Your task to perform on an android device: Open location settings Image 0: 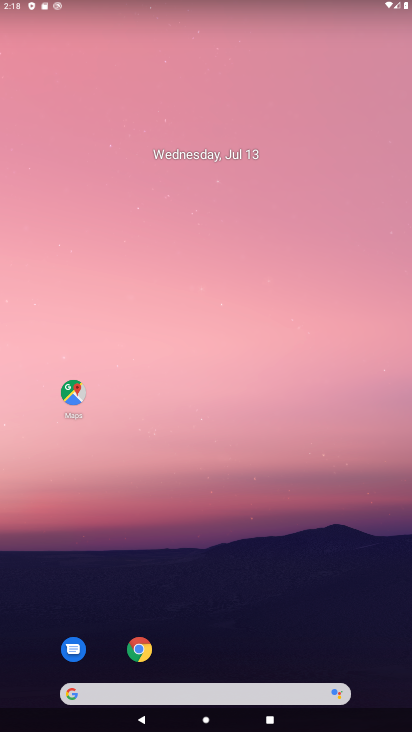
Step 0: drag from (227, 622) to (217, 169)
Your task to perform on an android device: Open location settings Image 1: 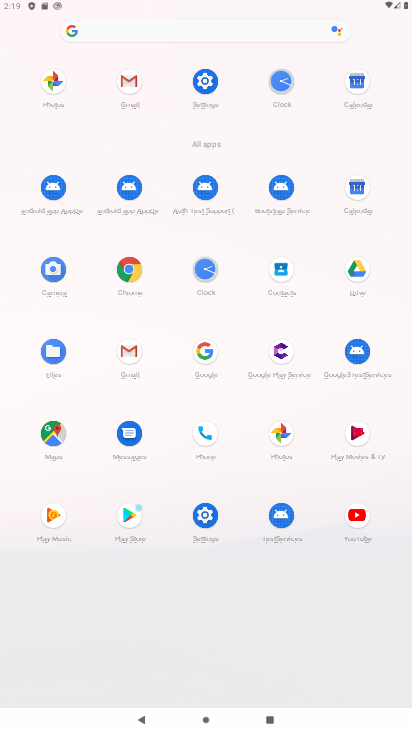
Step 1: click (201, 88)
Your task to perform on an android device: Open location settings Image 2: 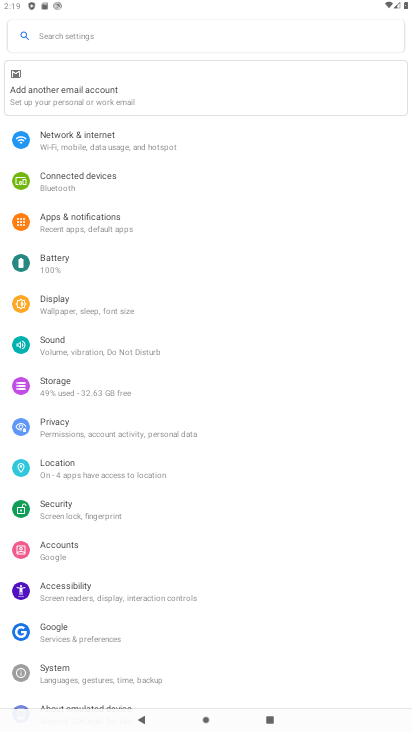
Step 2: click (55, 464)
Your task to perform on an android device: Open location settings Image 3: 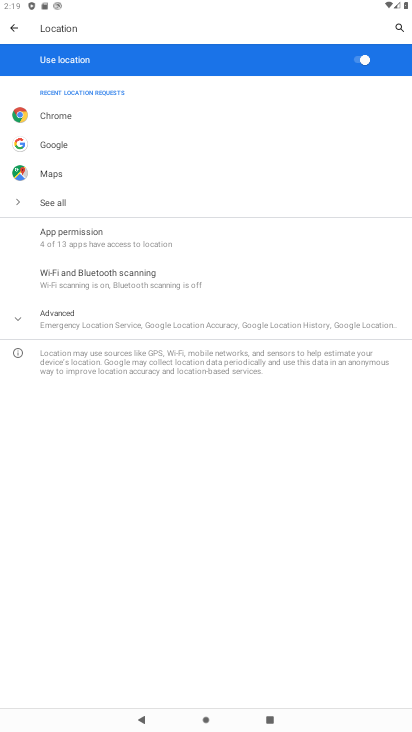
Step 3: task complete